Your task to perform on an android device: turn off improve location accuracy Image 0: 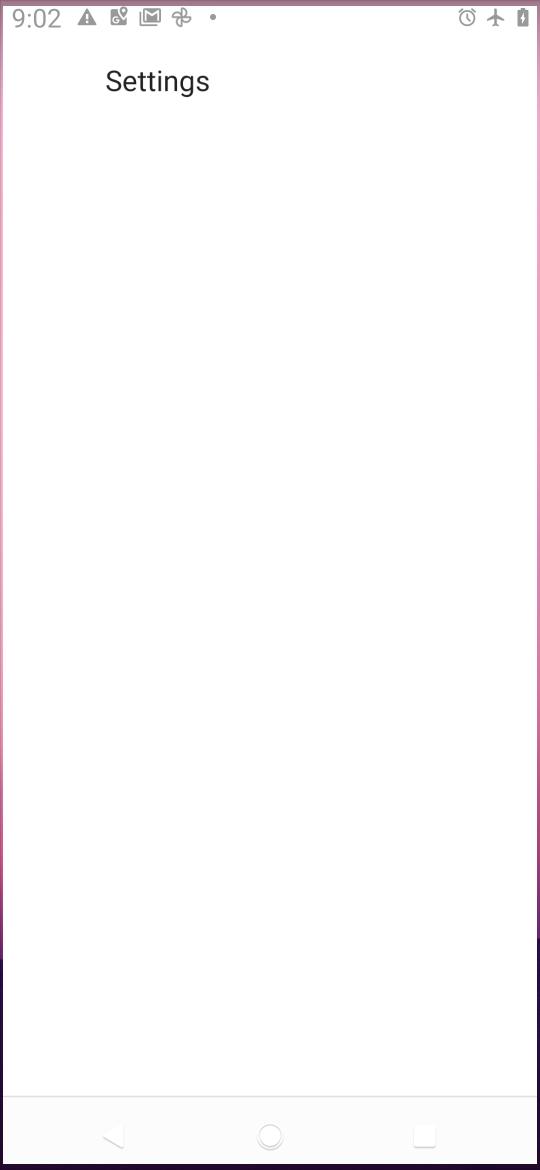
Step 0: drag from (467, 971) to (332, 136)
Your task to perform on an android device: turn off improve location accuracy Image 1: 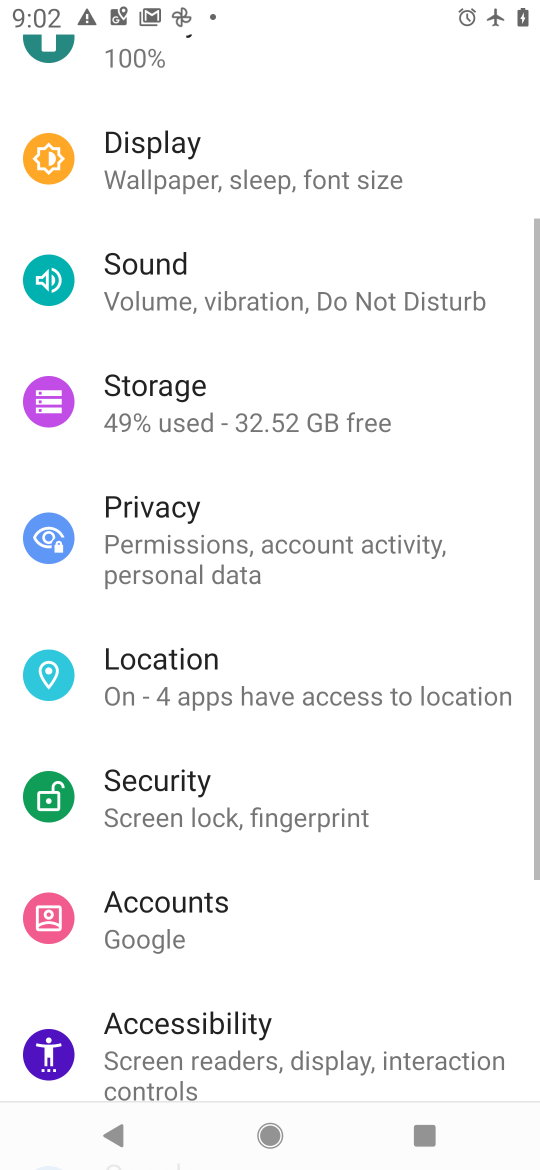
Step 1: press home button
Your task to perform on an android device: turn off improve location accuracy Image 2: 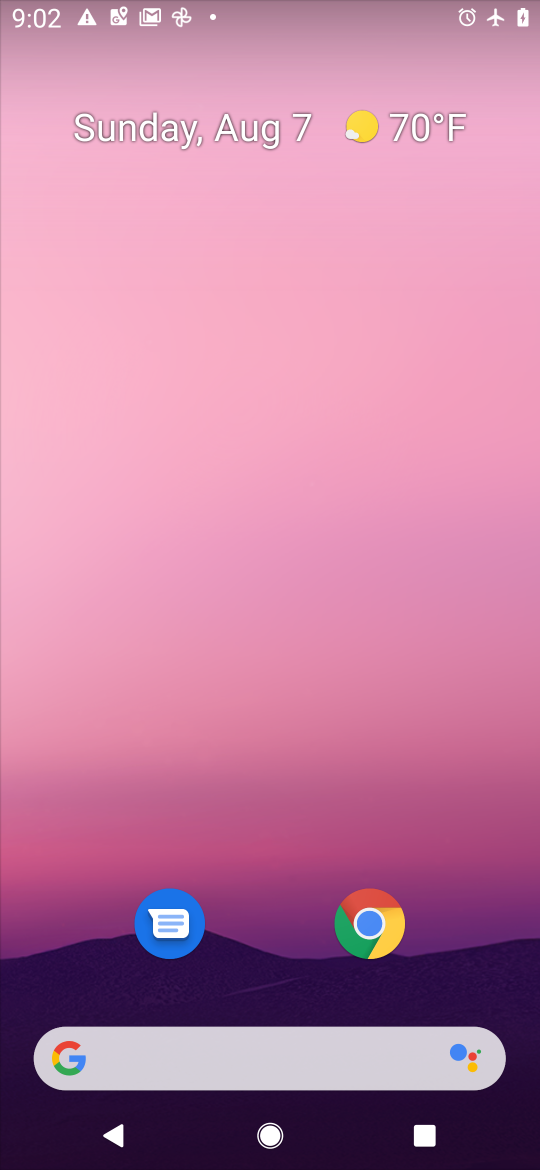
Step 2: drag from (476, 994) to (165, 19)
Your task to perform on an android device: turn off improve location accuracy Image 3: 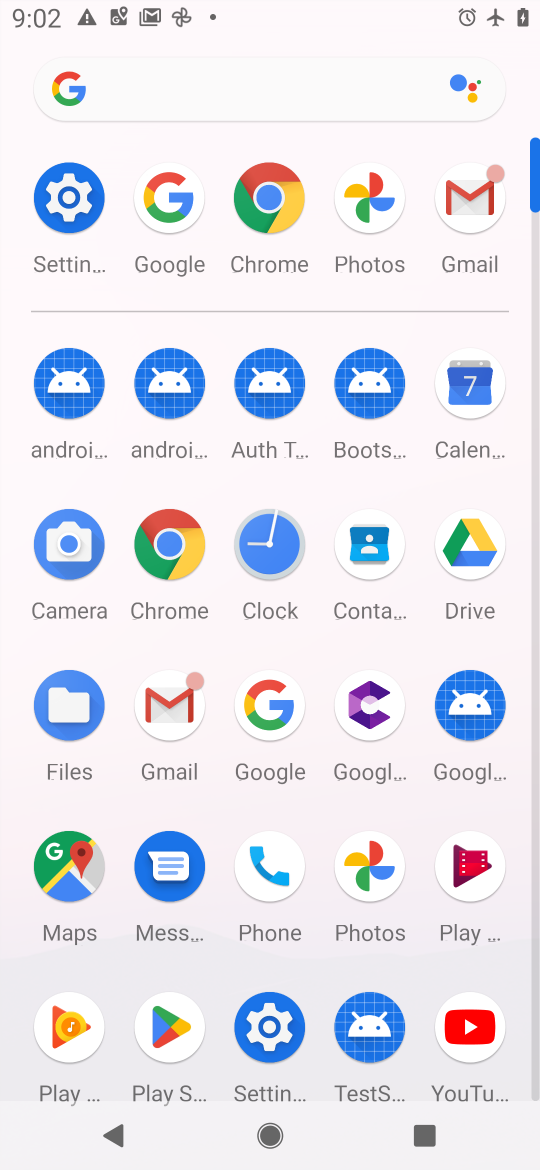
Step 3: click (266, 1017)
Your task to perform on an android device: turn off improve location accuracy Image 4: 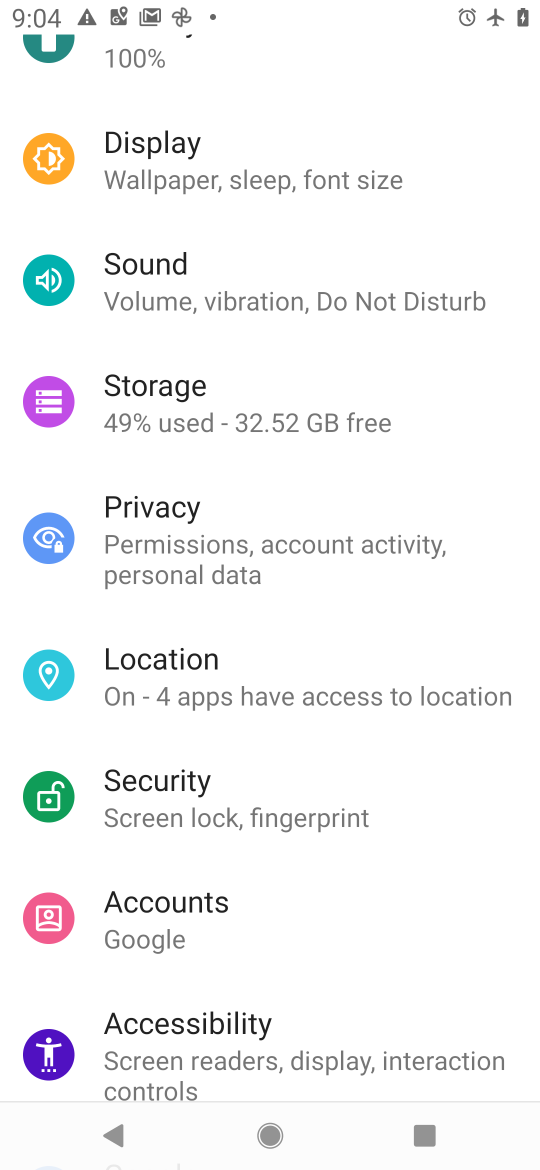
Step 4: click (146, 653)
Your task to perform on an android device: turn off improve location accuracy Image 5: 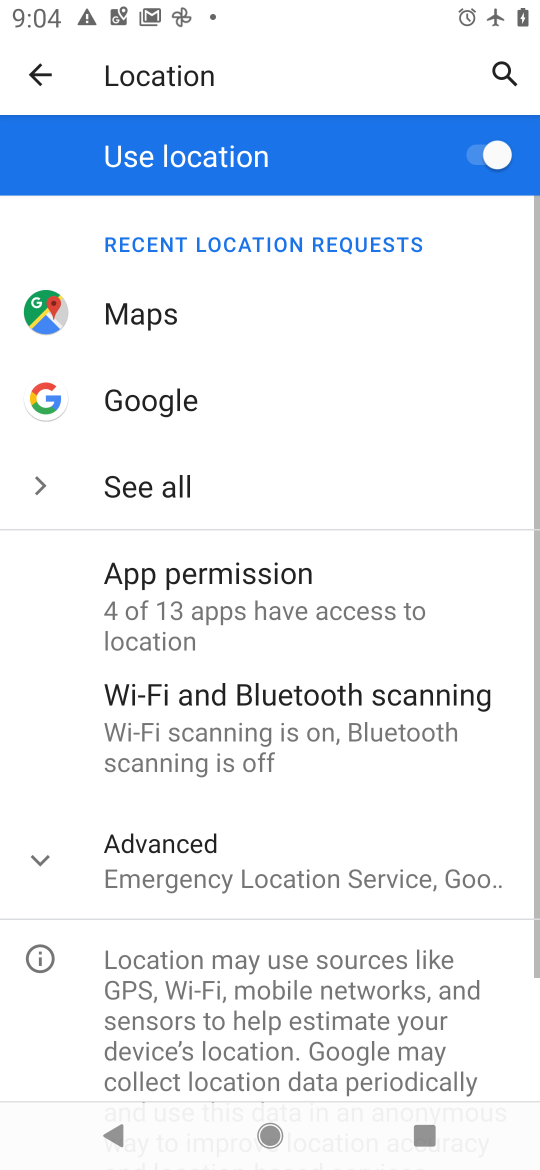
Step 5: click (128, 855)
Your task to perform on an android device: turn off improve location accuracy Image 6: 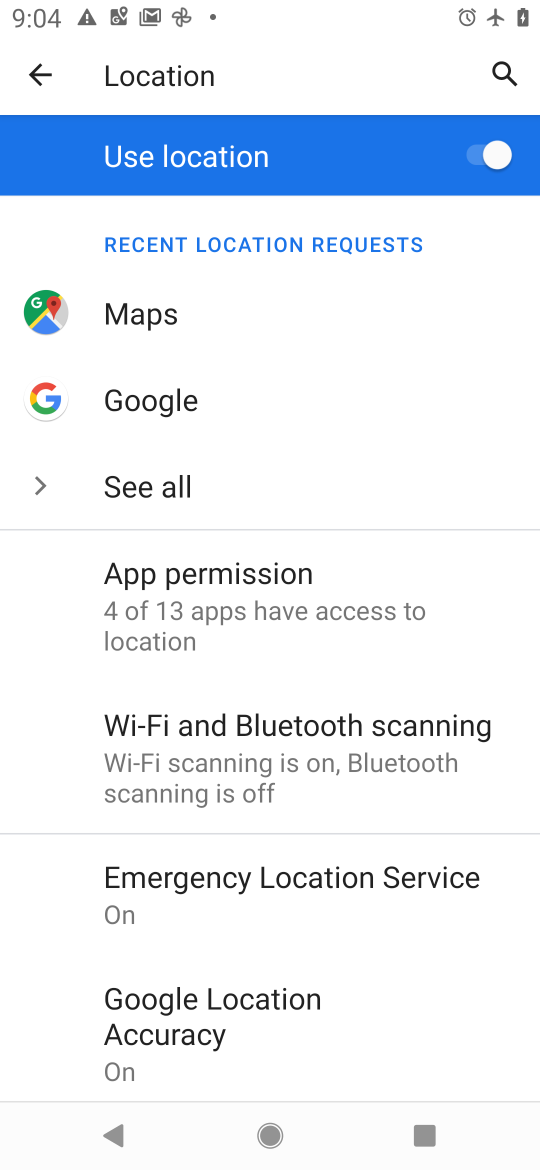
Step 6: click (192, 1022)
Your task to perform on an android device: turn off improve location accuracy Image 7: 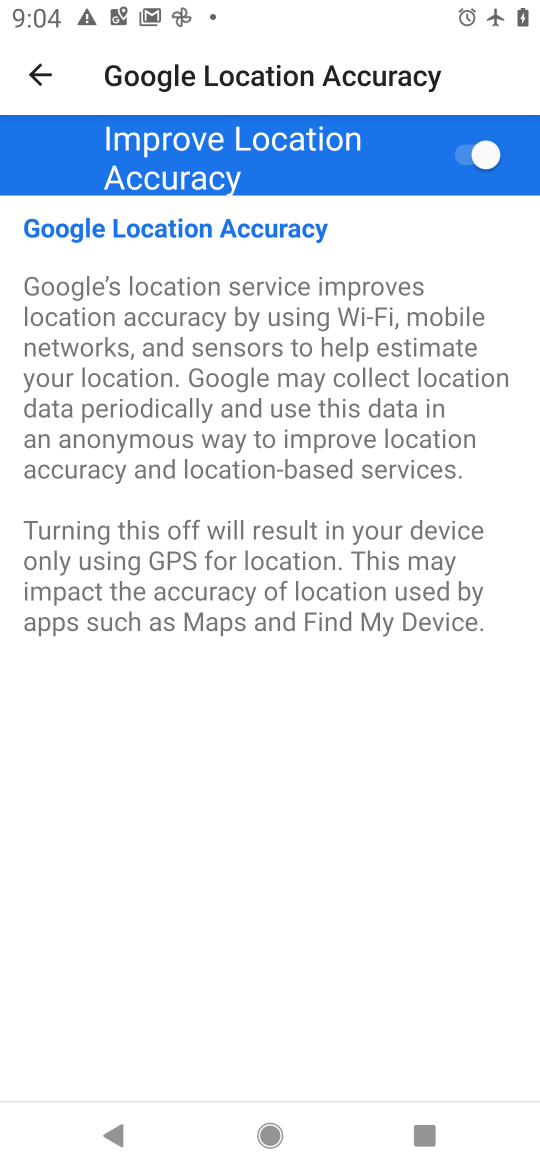
Step 7: click (465, 169)
Your task to perform on an android device: turn off improve location accuracy Image 8: 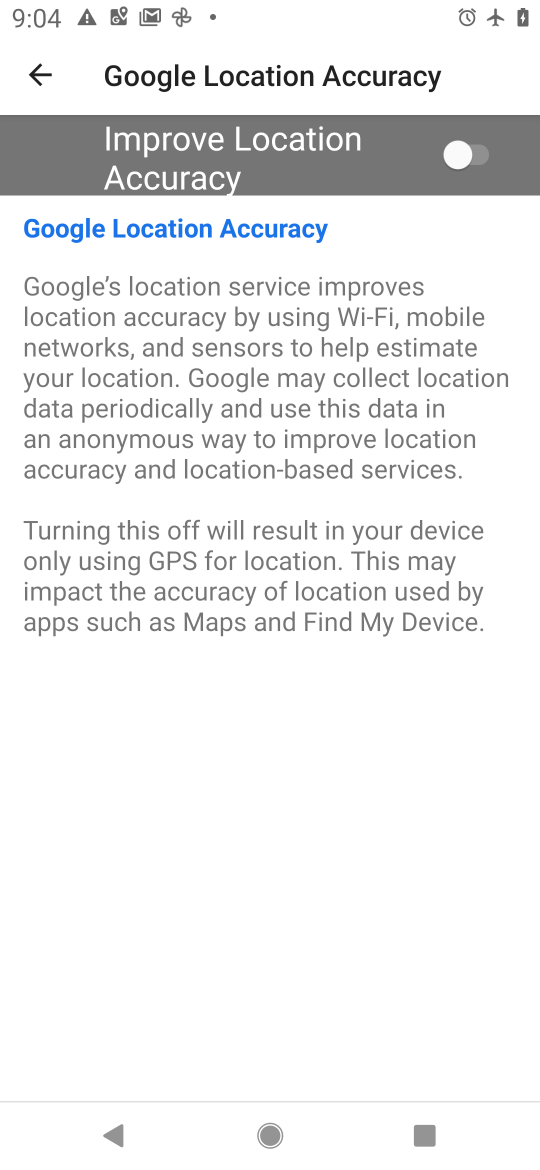
Step 8: task complete